Your task to perform on an android device: turn on improve location accuracy Image 0: 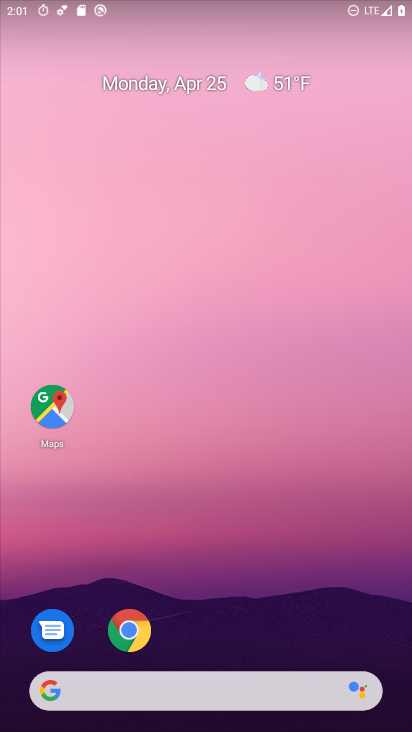
Step 0: drag from (166, 657) to (196, 184)
Your task to perform on an android device: turn on improve location accuracy Image 1: 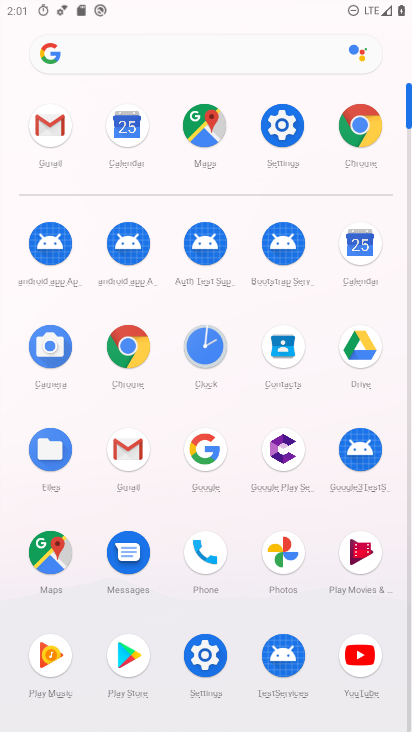
Step 1: click (212, 650)
Your task to perform on an android device: turn on improve location accuracy Image 2: 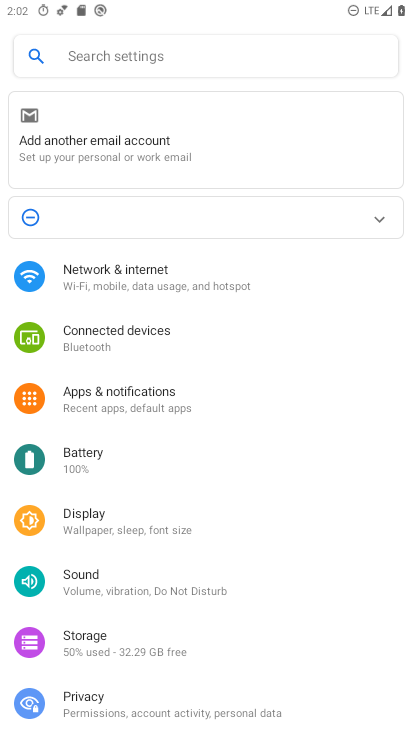
Step 2: drag from (170, 560) to (235, 212)
Your task to perform on an android device: turn on improve location accuracy Image 3: 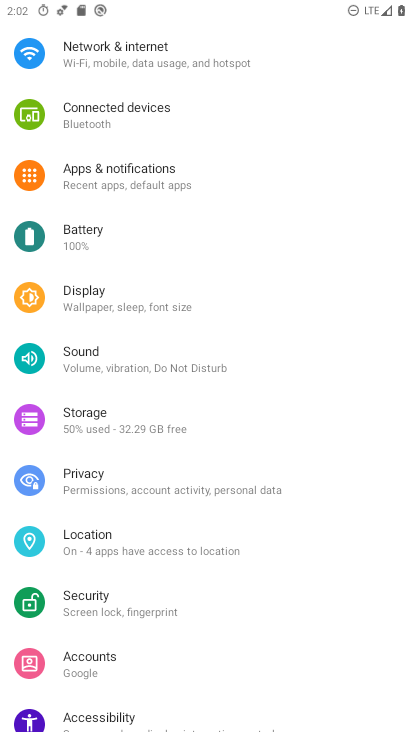
Step 3: click (123, 518)
Your task to perform on an android device: turn on improve location accuracy Image 4: 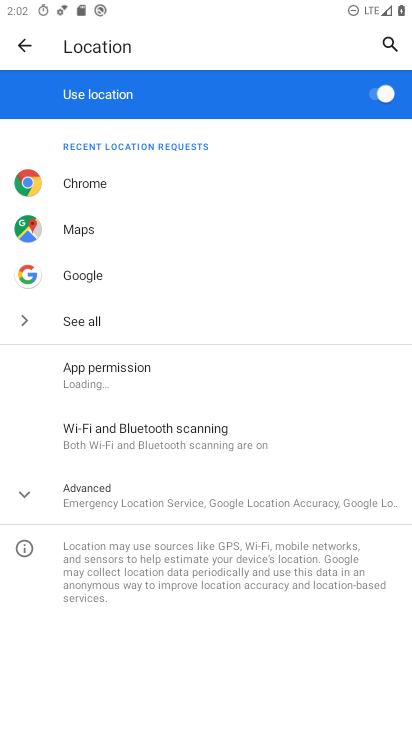
Step 4: click (125, 490)
Your task to perform on an android device: turn on improve location accuracy Image 5: 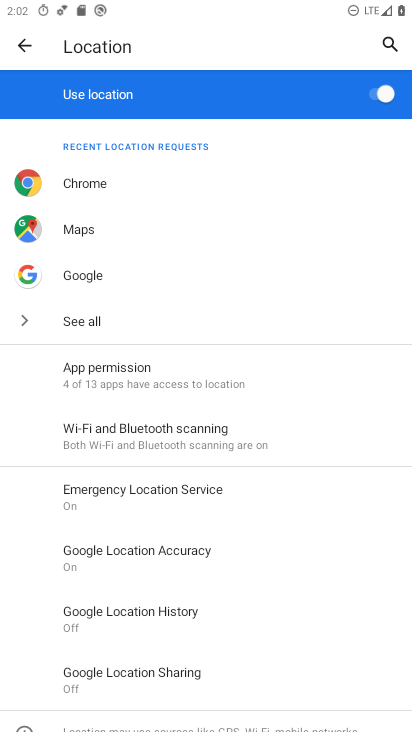
Step 5: click (176, 554)
Your task to perform on an android device: turn on improve location accuracy Image 6: 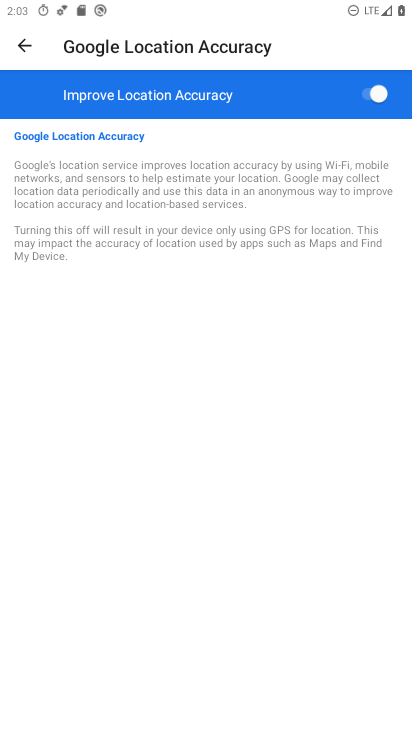
Step 6: task complete